Your task to perform on an android device: Open my contact list Image 0: 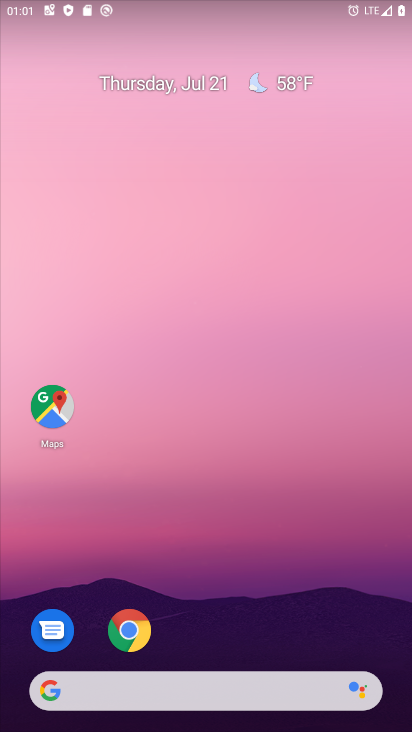
Step 0: drag from (243, 649) to (240, 26)
Your task to perform on an android device: Open my contact list Image 1: 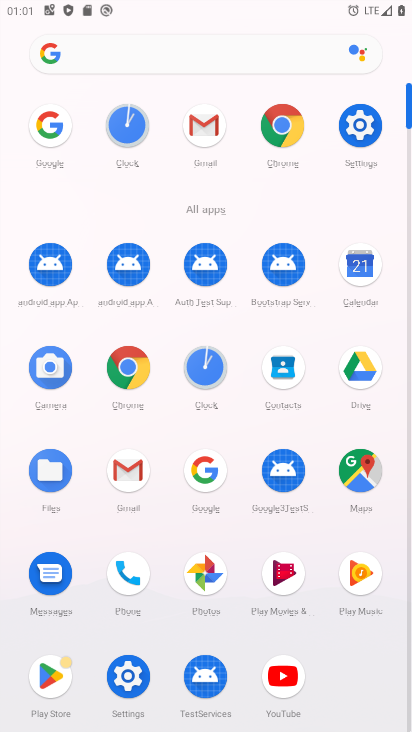
Step 1: click (293, 389)
Your task to perform on an android device: Open my contact list Image 2: 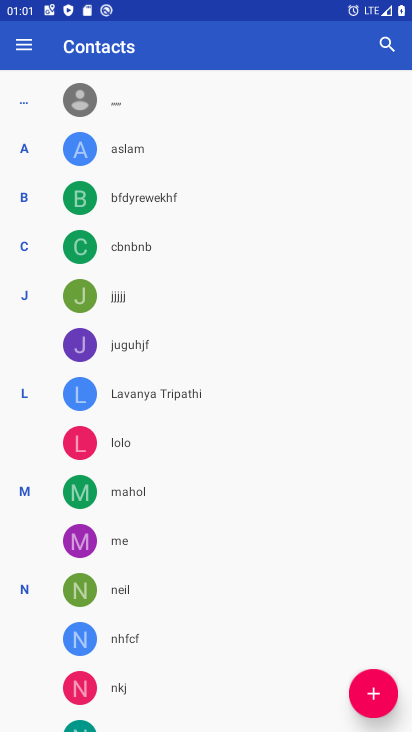
Step 2: task complete